Your task to perform on an android device: turn on sleep mode Image 0: 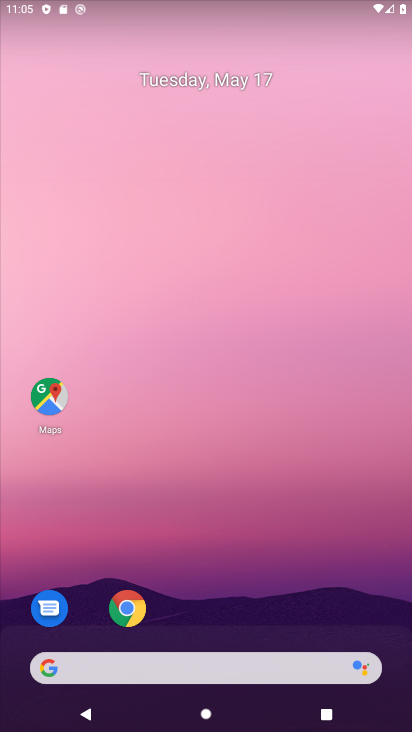
Step 0: drag from (217, 657) to (314, 149)
Your task to perform on an android device: turn on sleep mode Image 1: 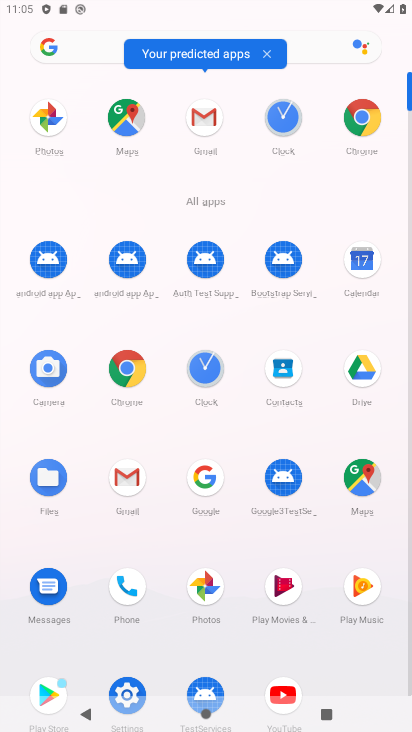
Step 1: drag from (178, 659) to (215, 439)
Your task to perform on an android device: turn on sleep mode Image 2: 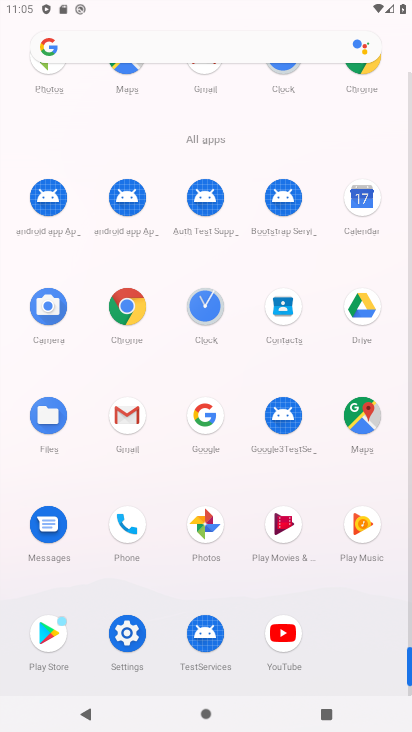
Step 2: click (139, 645)
Your task to perform on an android device: turn on sleep mode Image 3: 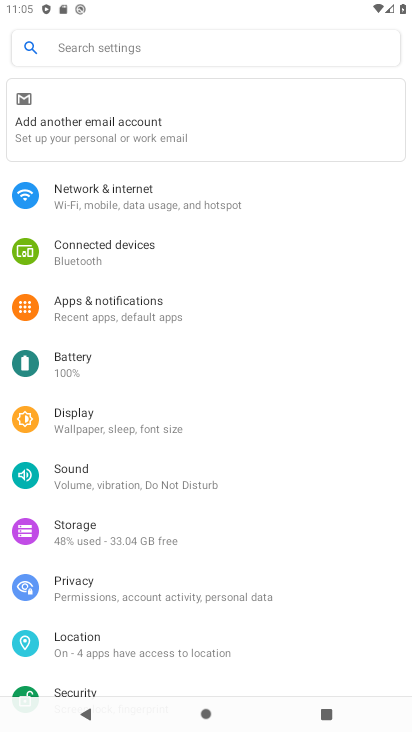
Step 3: click (160, 436)
Your task to perform on an android device: turn on sleep mode Image 4: 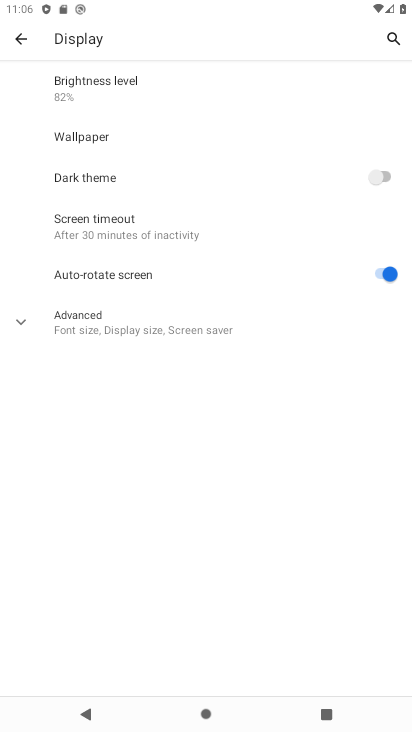
Step 4: click (188, 327)
Your task to perform on an android device: turn on sleep mode Image 5: 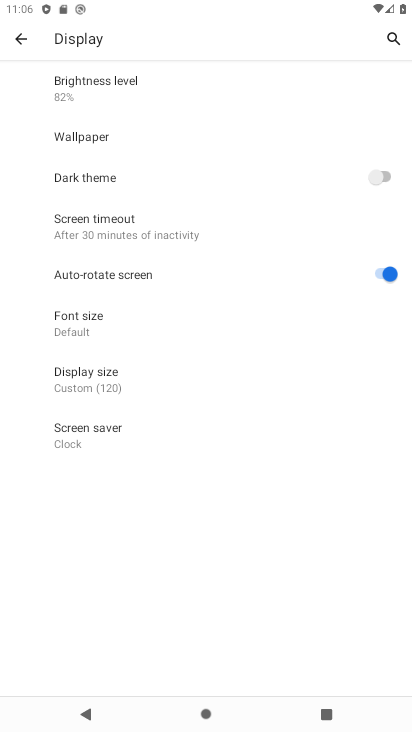
Step 5: task complete